Your task to perform on an android device: check storage Image 0: 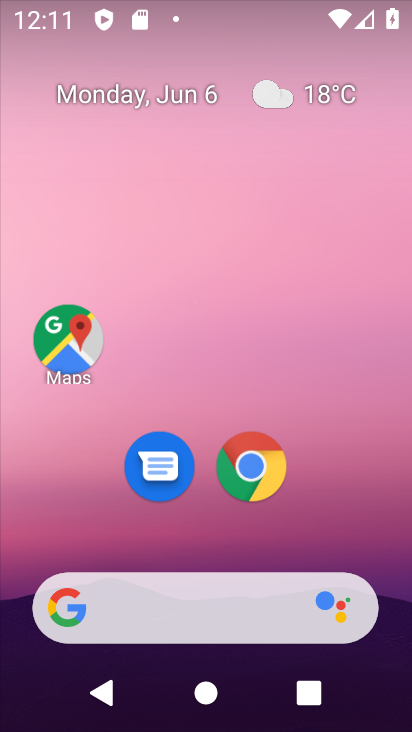
Step 0: drag from (346, 541) to (232, 27)
Your task to perform on an android device: check storage Image 1: 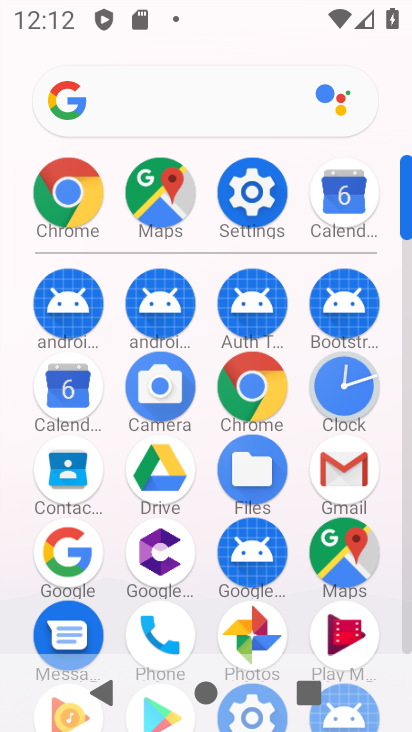
Step 1: drag from (18, 372) to (19, 287)
Your task to perform on an android device: check storage Image 2: 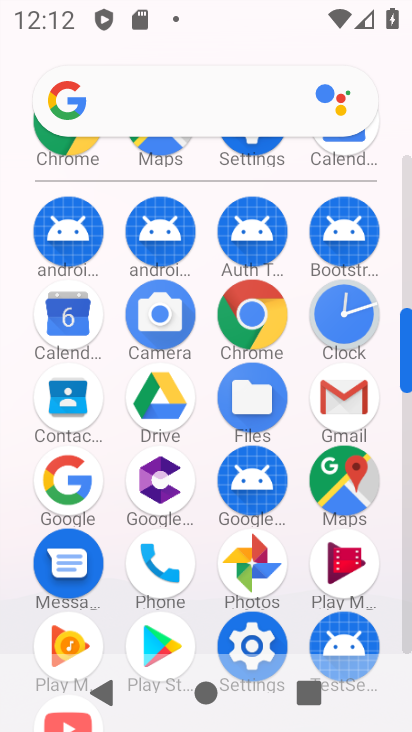
Step 2: click (250, 637)
Your task to perform on an android device: check storage Image 3: 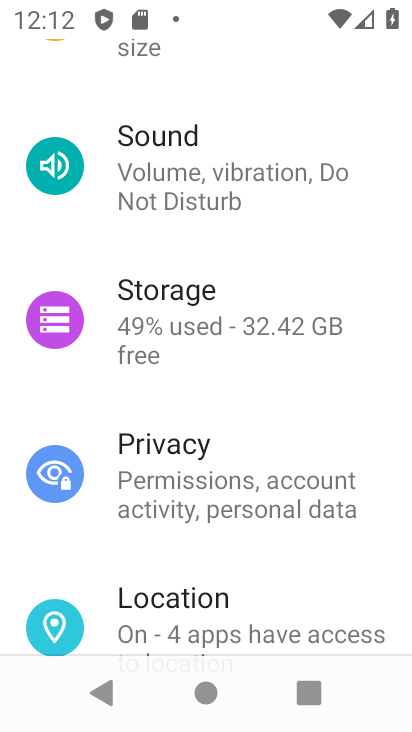
Step 3: click (221, 295)
Your task to perform on an android device: check storage Image 4: 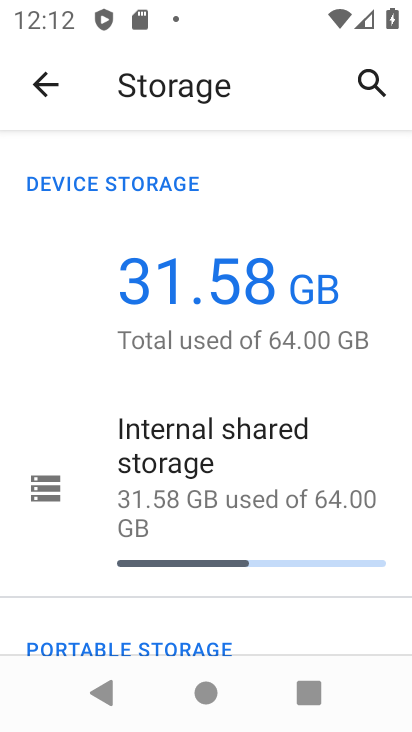
Step 4: task complete